Your task to perform on an android device: Search for pizza restaurants on Maps Image 0: 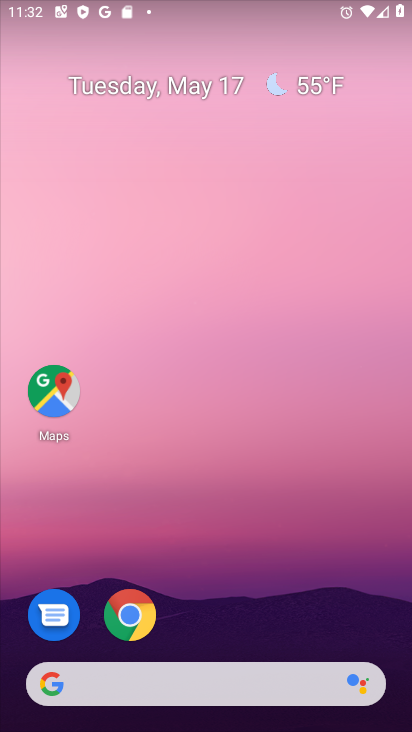
Step 0: click (51, 398)
Your task to perform on an android device: Search for pizza restaurants on Maps Image 1: 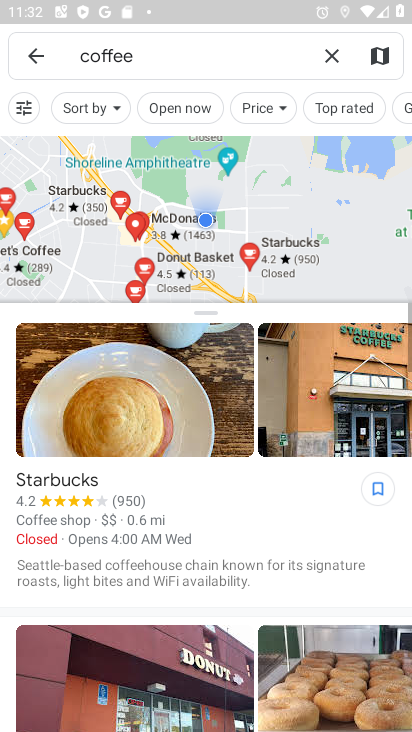
Step 1: click (187, 58)
Your task to perform on an android device: Search for pizza restaurants on Maps Image 2: 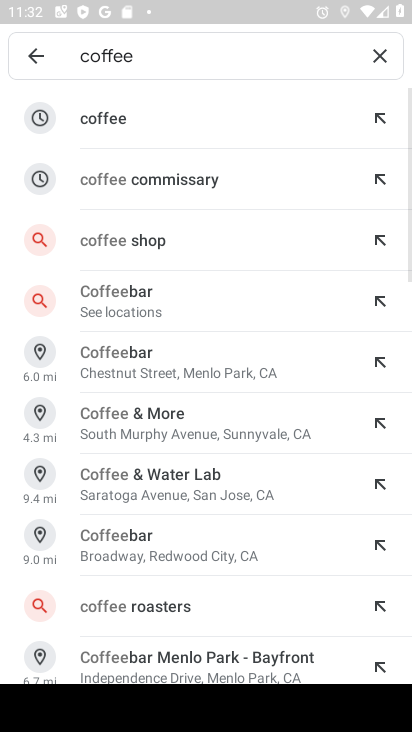
Step 2: click (372, 63)
Your task to perform on an android device: Search for pizza restaurants on Maps Image 3: 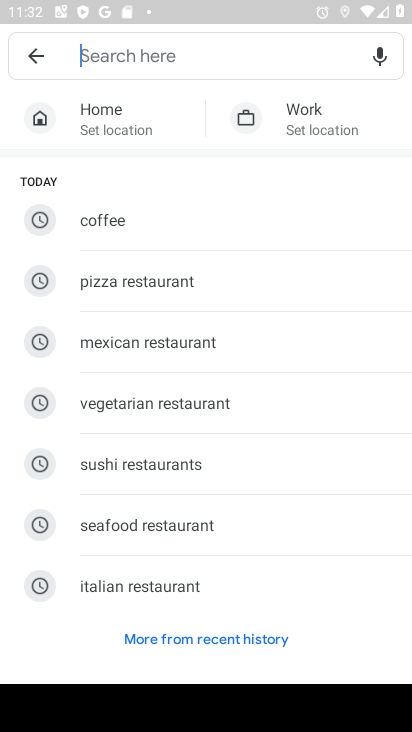
Step 3: type "pizza restaurants"
Your task to perform on an android device: Search for pizza restaurants on Maps Image 4: 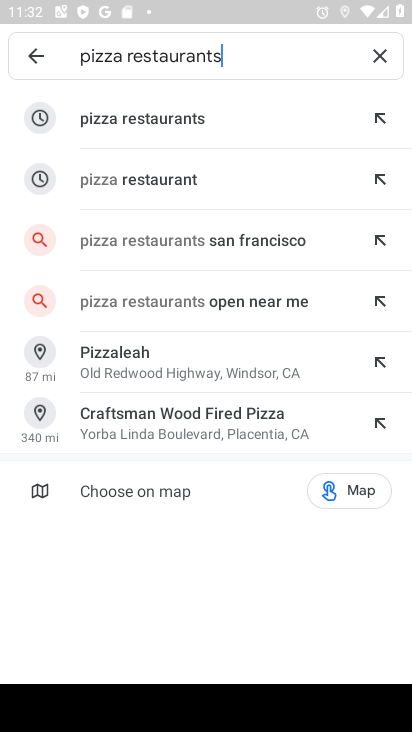
Step 4: click (236, 119)
Your task to perform on an android device: Search for pizza restaurants on Maps Image 5: 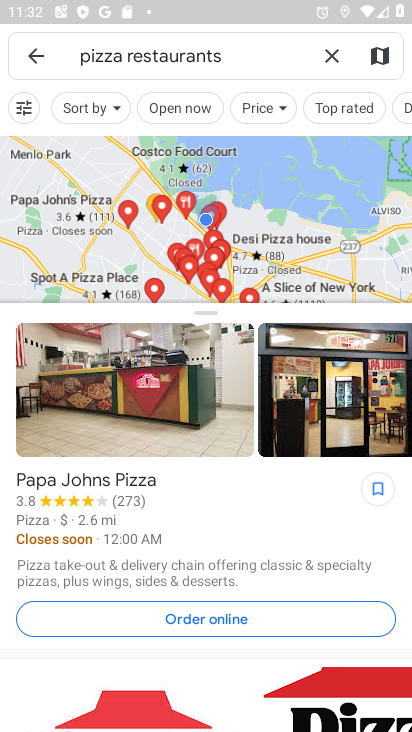
Step 5: task complete